Your task to perform on an android device: Go to network settings Image 0: 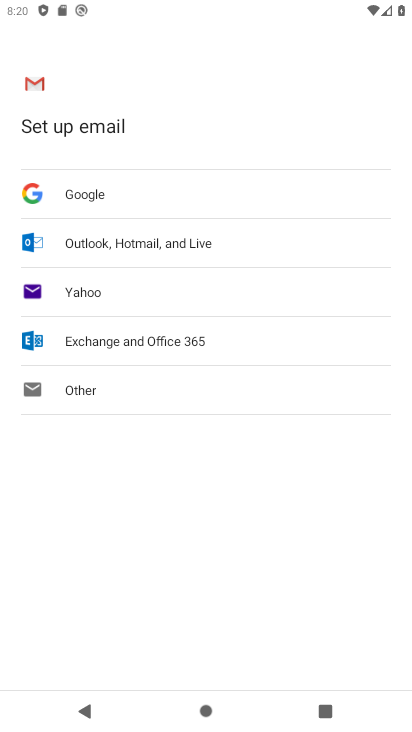
Step 0: press home button
Your task to perform on an android device: Go to network settings Image 1: 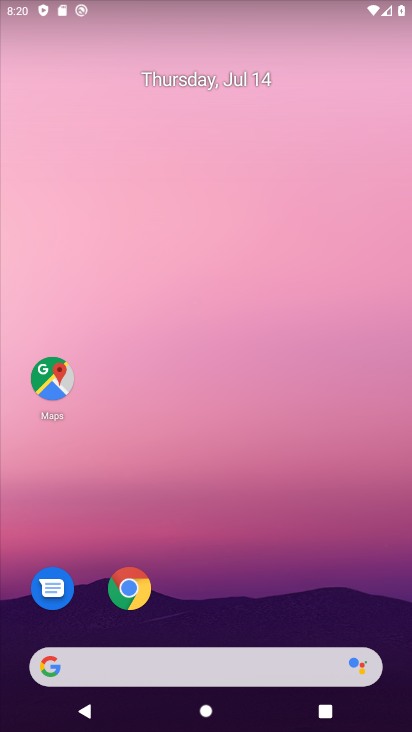
Step 1: drag from (209, 611) to (262, 119)
Your task to perform on an android device: Go to network settings Image 2: 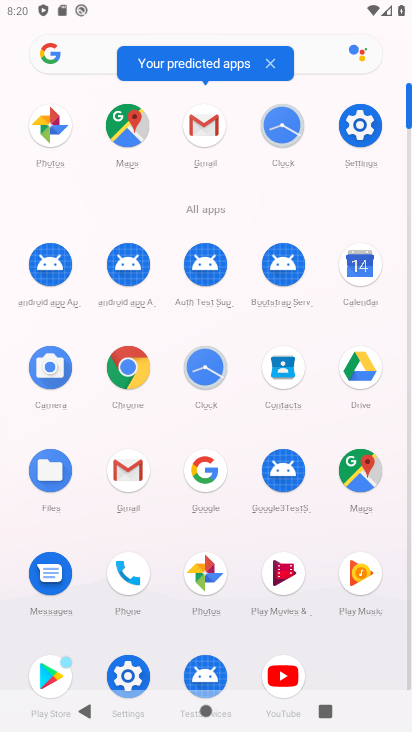
Step 2: click (361, 125)
Your task to perform on an android device: Go to network settings Image 3: 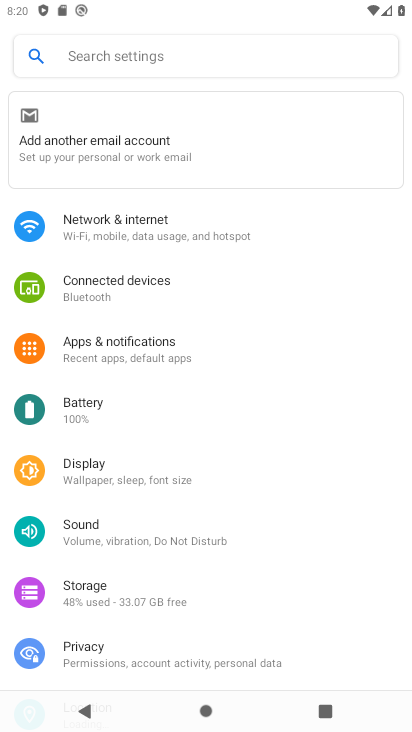
Step 3: click (145, 224)
Your task to perform on an android device: Go to network settings Image 4: 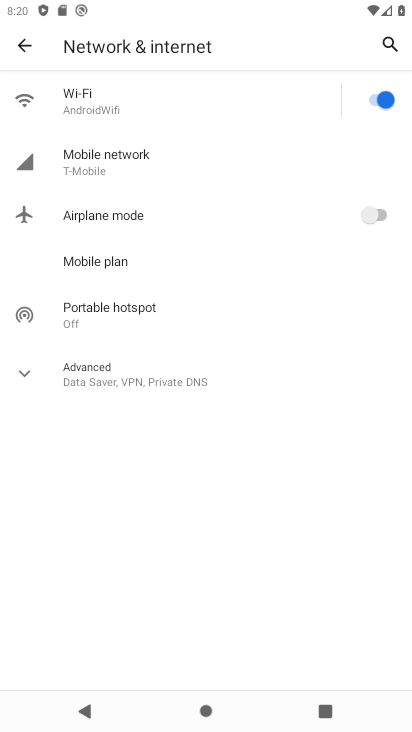
Step 4: click (105, 165)
Your task to perform on an android device: Go to network settings Image 5: 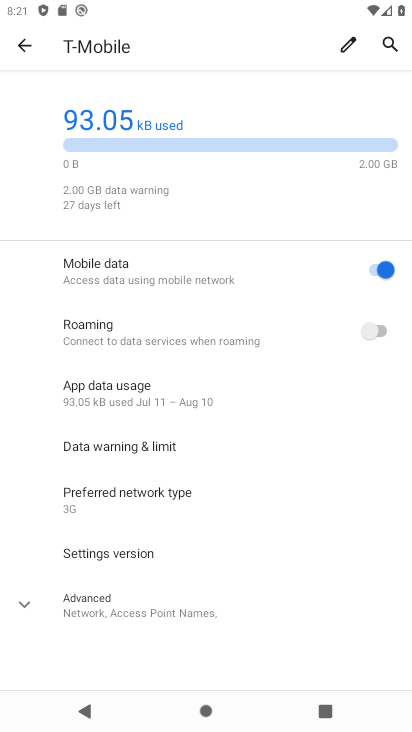
Step 5: task complete